Your task to perform on an android device: Check the weather Image 0: 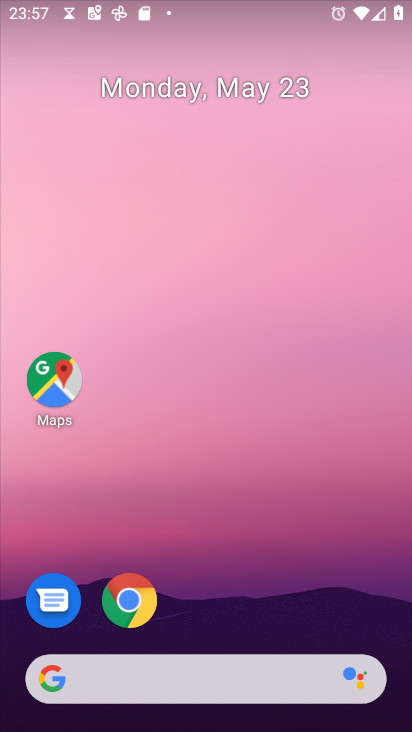
Step 0: drag from (231, 721) to (221, 217)
Your task to perform on an android device: Check the weather Image 1: 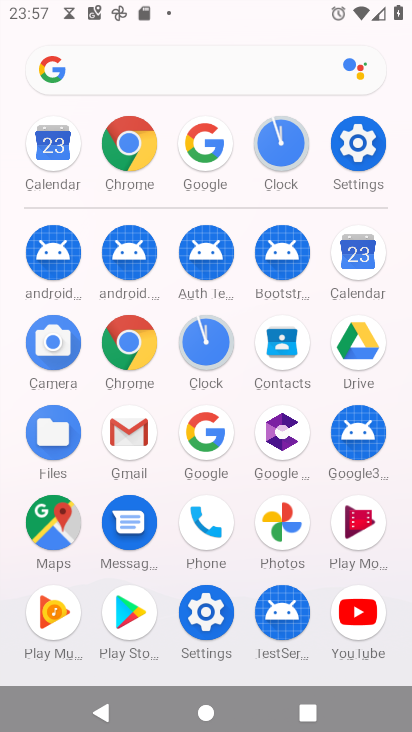
Step 1: click (206, 429)
Your task to perform on an android device: Check the weather Image 2: 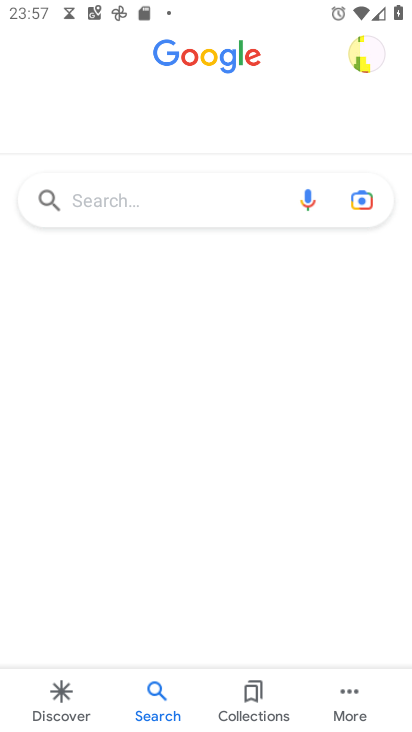
Step 2: click (155, 200)
Your task to perform on an android device: Check the weather Image 3: 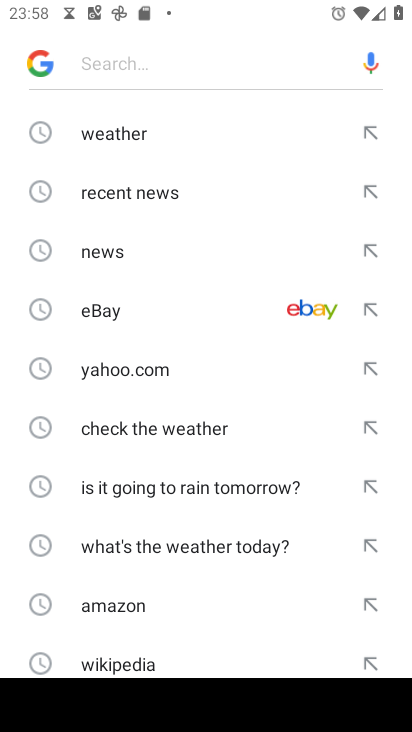
Step 3: click (116, 132)
Your task to perform on an android device: Check the weather Image 4: 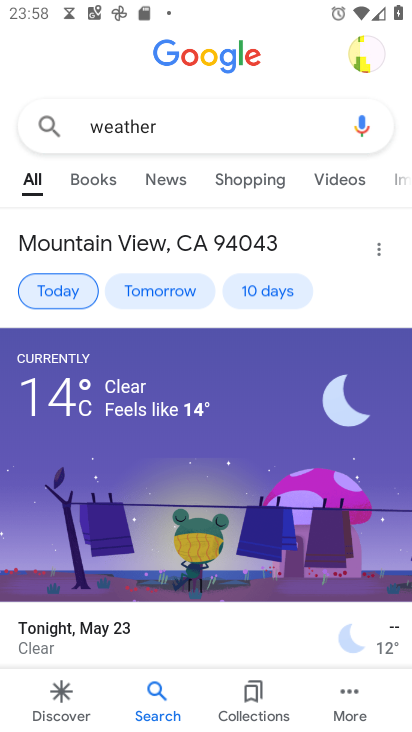
Step 4: task complete